Your task to perform on an android device: turn on bluetooth scan Image 0: 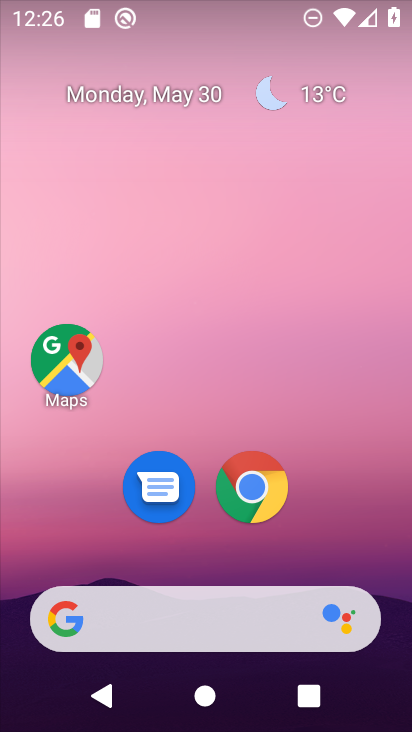
Step 0: drag from (395, 655) to (355, 269)
Your task to perform on an android device: turn on bluetooth scan Image 1: 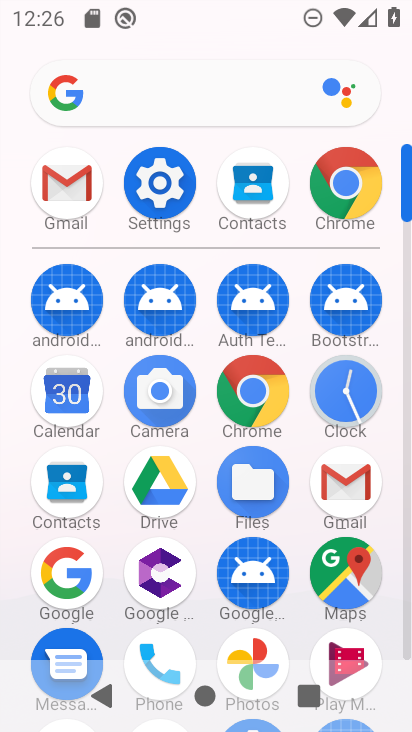
Step 1: click (160, 158)
Your task to perform on an android device: turn on bluetooth scan Image 2: 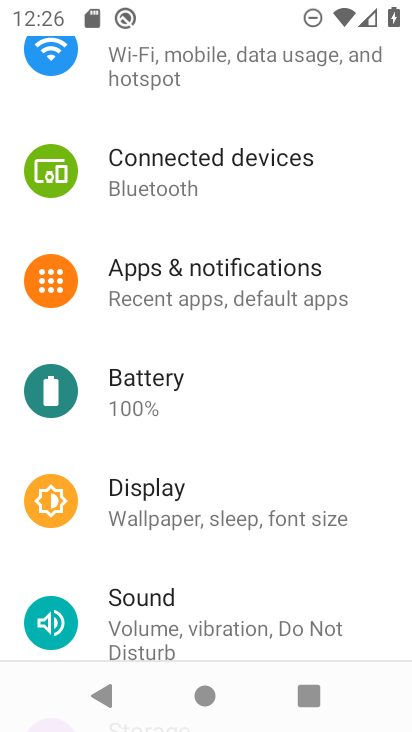
Step 2: drag from (288, 582) to (294, 261)
Your task to perform on an android device: turn on bluetooth scan Image 3: 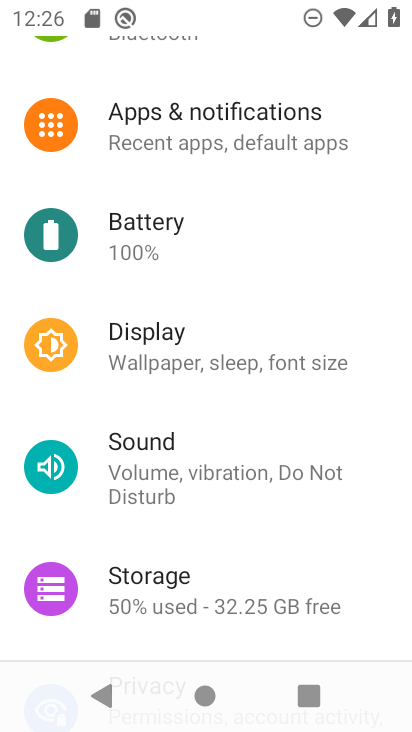
Step 3: drag from (355, 623) to (342, 435)
Your task to perform on an android device: turn on bluetooth scan Image 4: 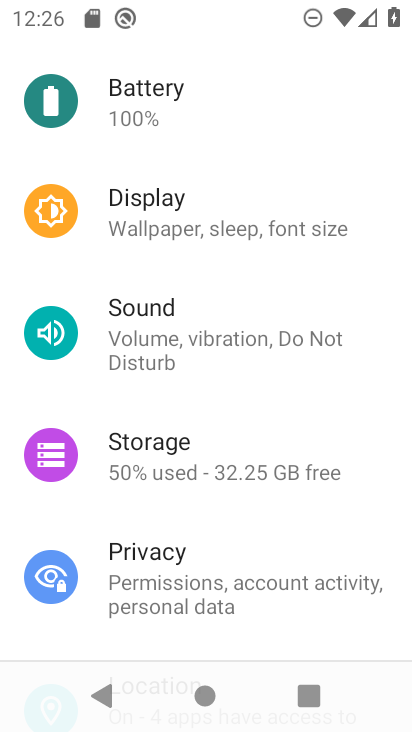
Step 4: drag from (307, 605) to (314, 404)
Your task to perform on an android device: turn on bluetooth scan Image 5: 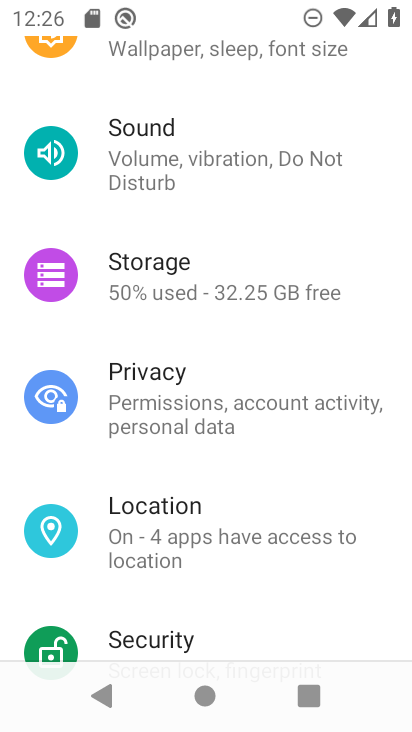
Step 5: click (132, 530)
Your task to perform on an android device: turn on bluetooth scan Image 6: 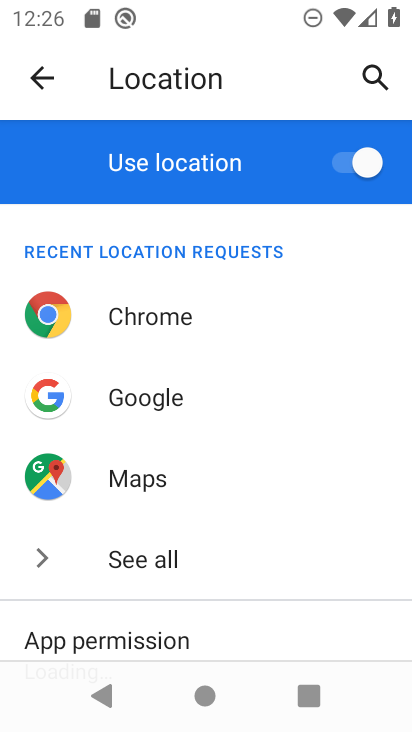
Step 6: drag from (287, 611) to (271, 295)
Your task to perform on an android device: turn on bluetooth scan Image 7: 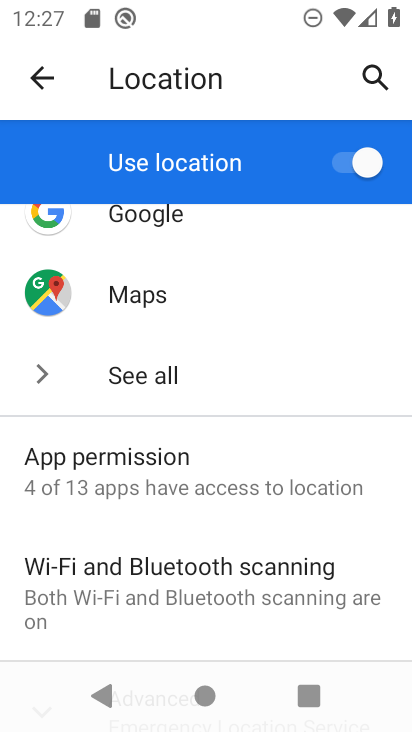
Step 7: drag from (326, 619) to (332, 355)
Your task to perform on an android device: turn on bluetooth scan Image 8: 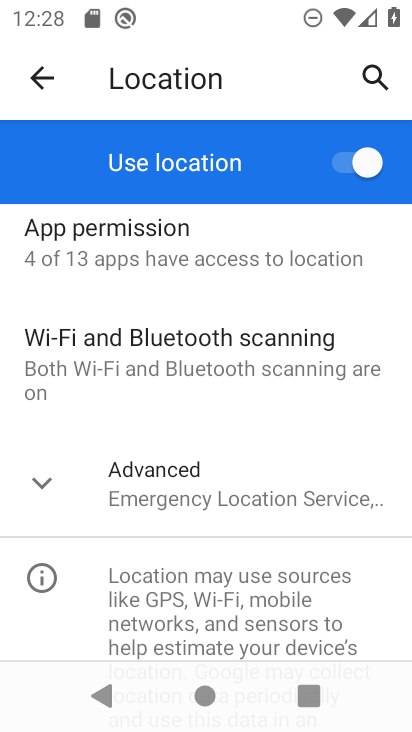
Step 8: click (246, 347)
Your task to perform on an android device: turn on bluetooth scan Image 9: 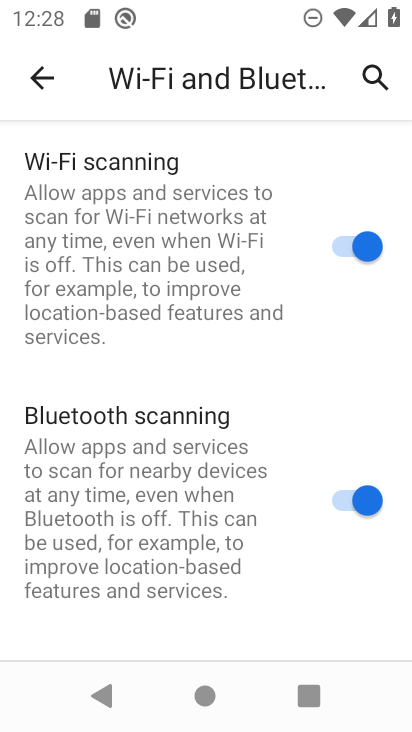
Step 9: task complete